Your task to perform on an android device: star an email in the gmail app Image 0: 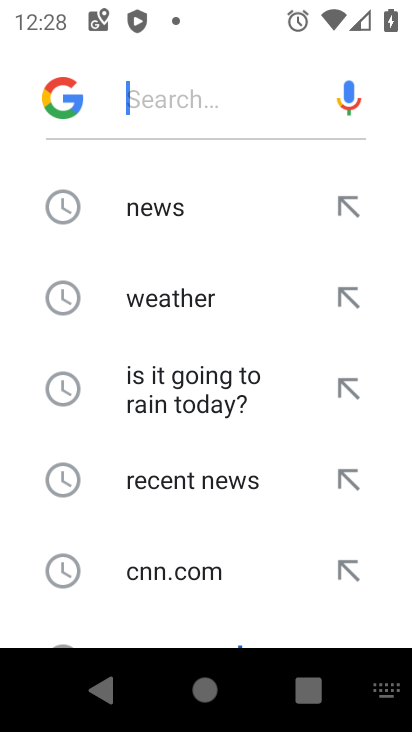
Step 0: press home button
Your task to perform on an android device: star an email in the gmail app Image 1: 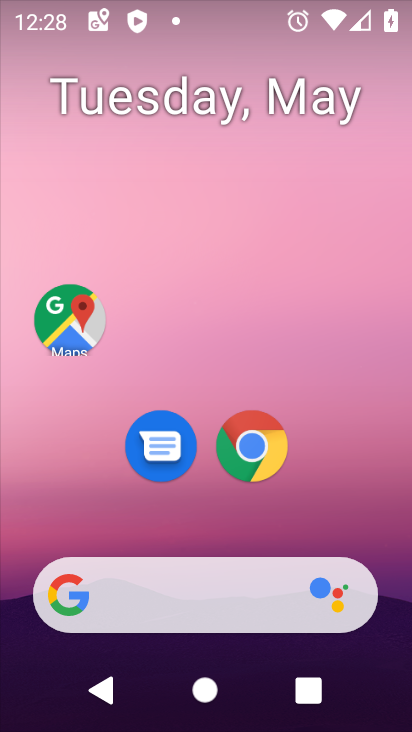
Step 1: drag from (289, 499) to (293, 182)
Your task to perform on an android device: star an email in the gmail app Image 2: 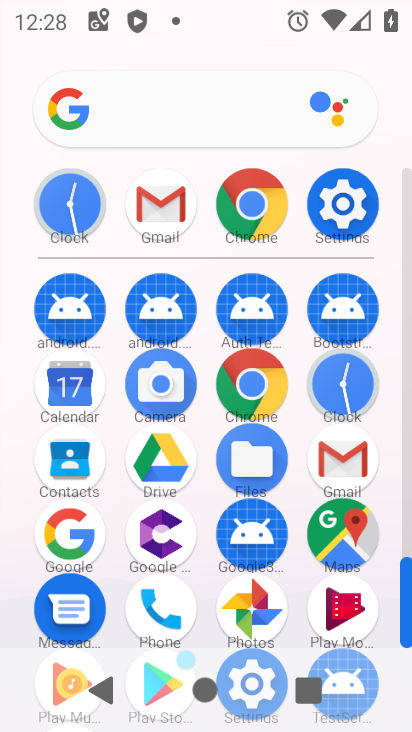
Step 2: click (336, 452)
Your task to perform on an android device: star an email in the gmail app Image 3: 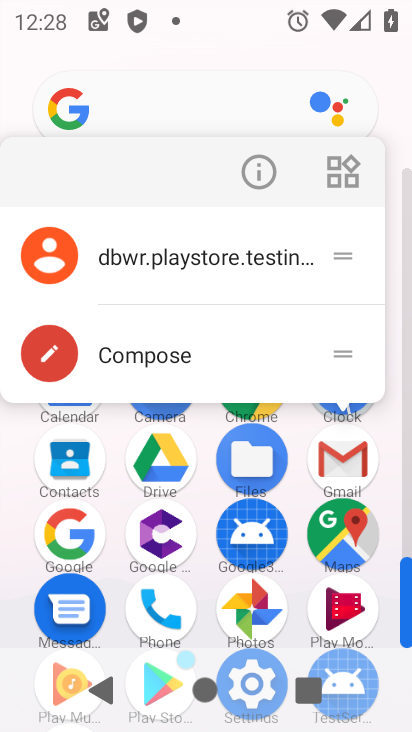
Step 3: click (332, 453)
Your task to perform on an android device: star an email in the gmail app Image 4: 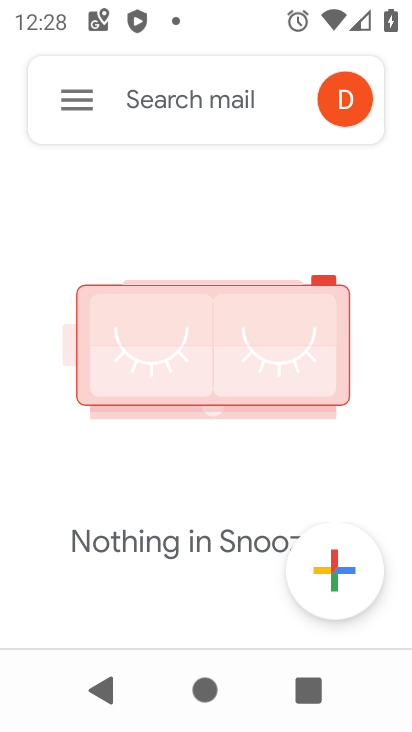
Step 4: click (65, 102)
Your task to perform on an android device: star an email in the gmail app Image 5: 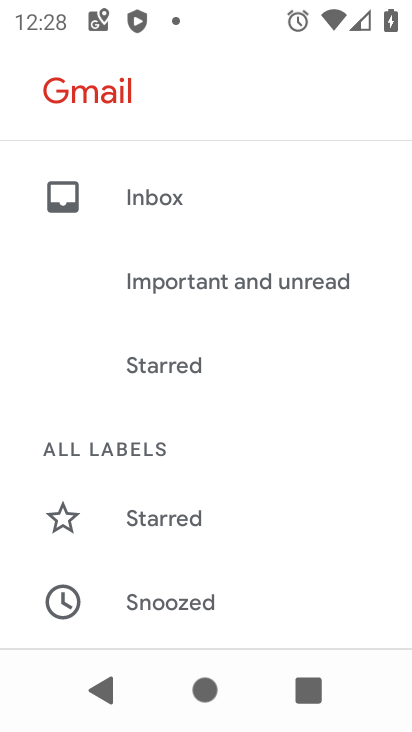
Step 5: click (197, 514)
Your task to perform on an android device: star an email in the gmail app Image 6: 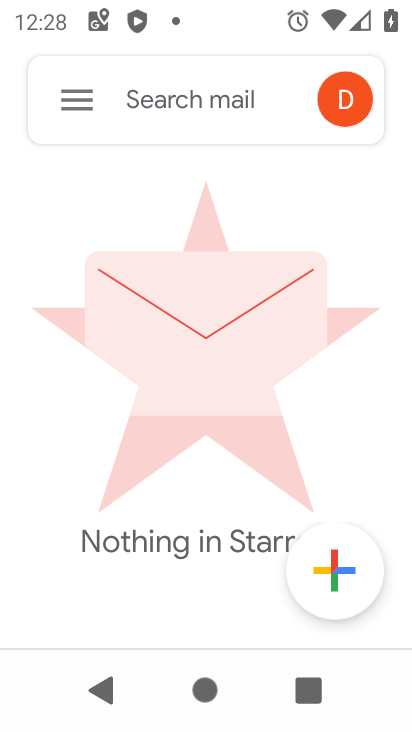
Step 6: task complete